Your task to perform on an android device: change keyboard looks Image 0: 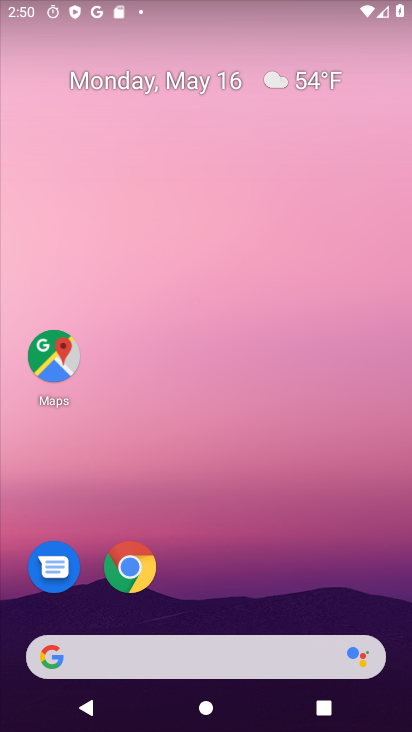
Step 0: drag from (266, 568) to (214, 88)
Your task to perform on an android device: change keyboard looks Image 1: 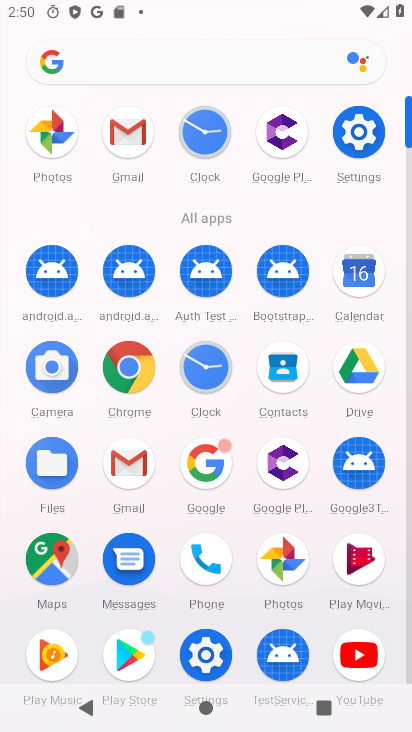
Step 1: click (358, 131)
Your task to perform on an android device: change keyboard looks Image 2: 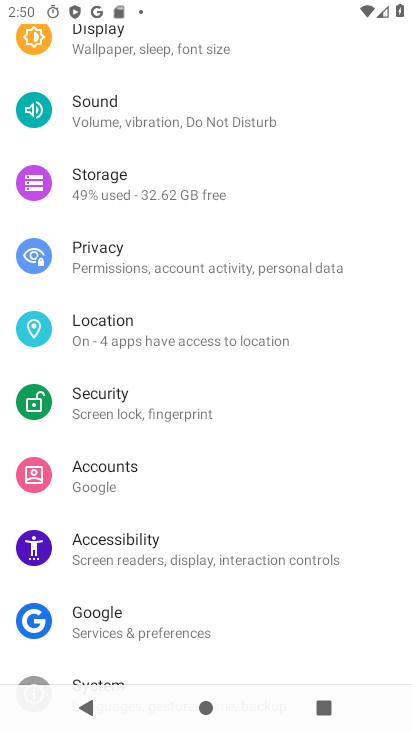
Step 2: drag from (184, 486) to (198, 428)
Your task to perform on an android device: change keyboard looks Image 3: 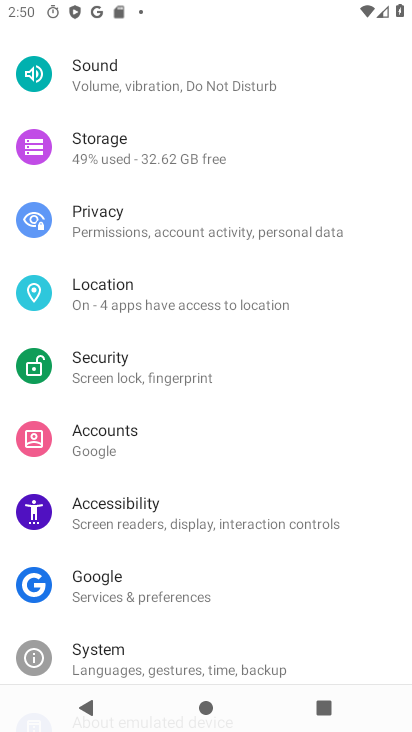
Step 3: drag from (220, 262) to (251, 366)
Your task to perform on an android device: change keyboard looks Image 4: 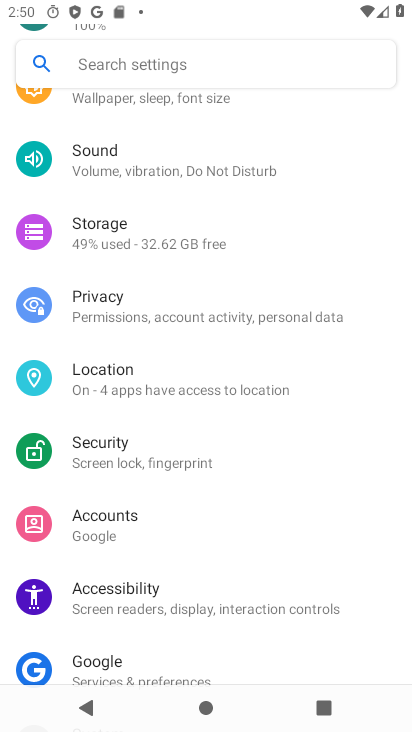
Step 4: drag from (253, 219) to (290, 327)
Your task to perform on an android device: change keyboard looks Image 5: 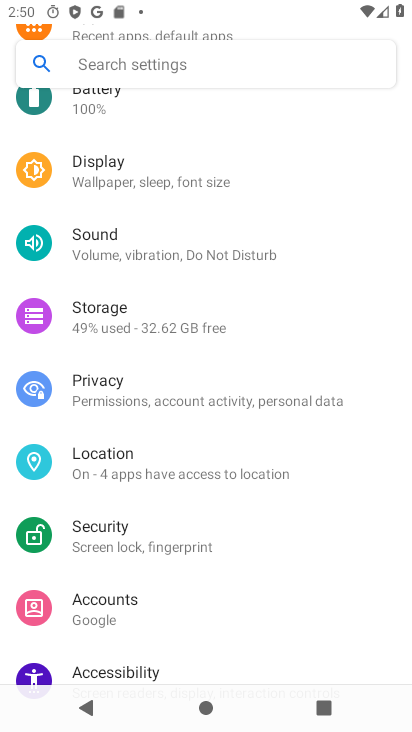
Step 5: drag from (160, 507) to (216, 357)
Your task to perform on an android device: change keyboard looks Image 6: 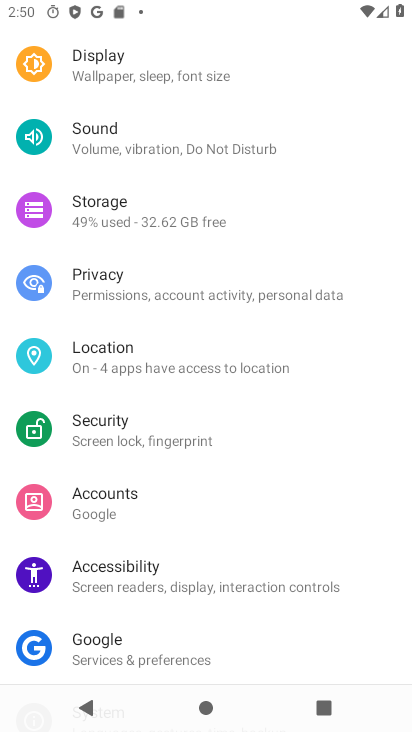
Step 6: drag from (173, 548) to (209, 432)
Your task to perform on an android device: change keyboard looks Image 7: 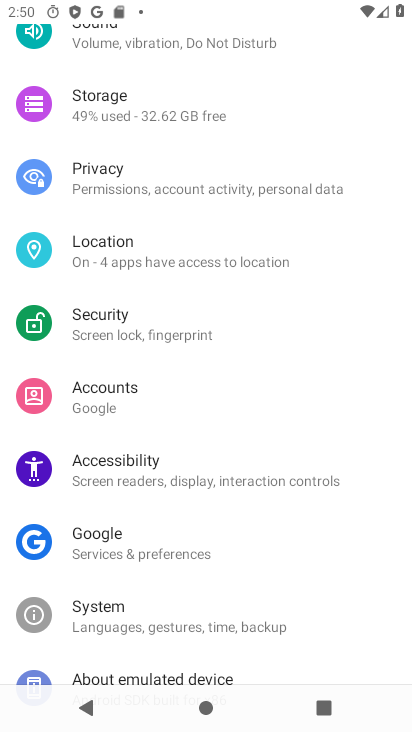
Step 7: drag from (156, 516) to (212, 401)
Your task to perform on an android device: change keyboard looks Image 8: 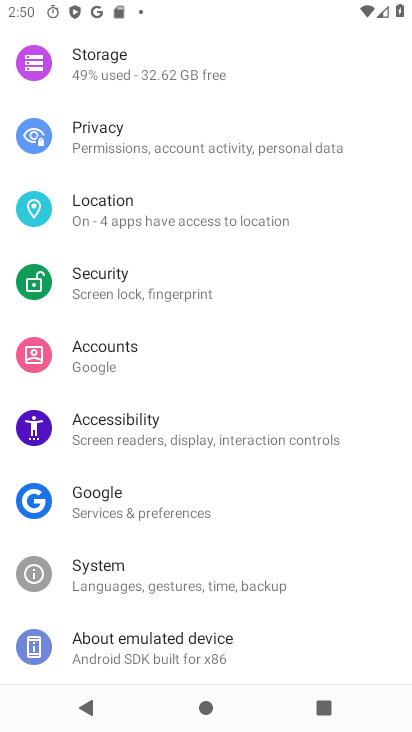
Step 8: click (160, 592)
Your task to perform on an android device: change keyboard looks Image 9: 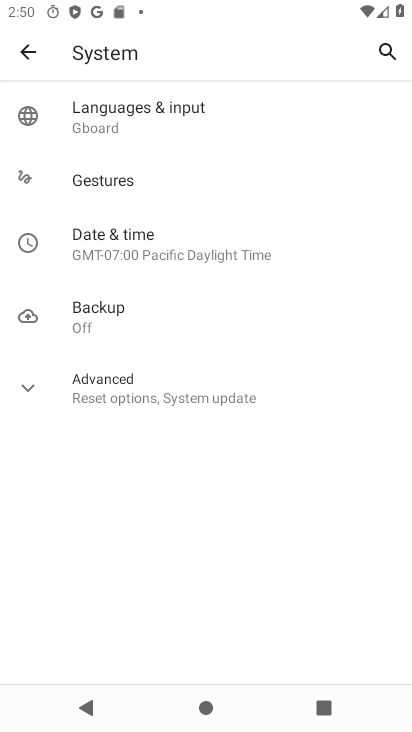
Step 9: click (148, 117)
Your task to perform on an android device: change keyboard looks Image 10: 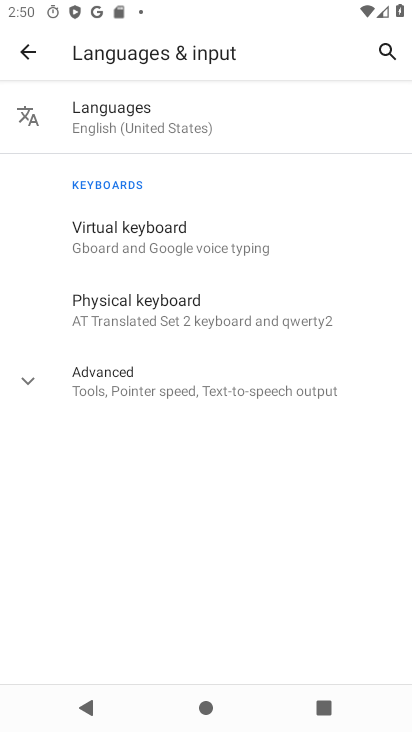
Step 10: click (145, 253)
Your task to perform on an android device: change keyboard looks Image 11: 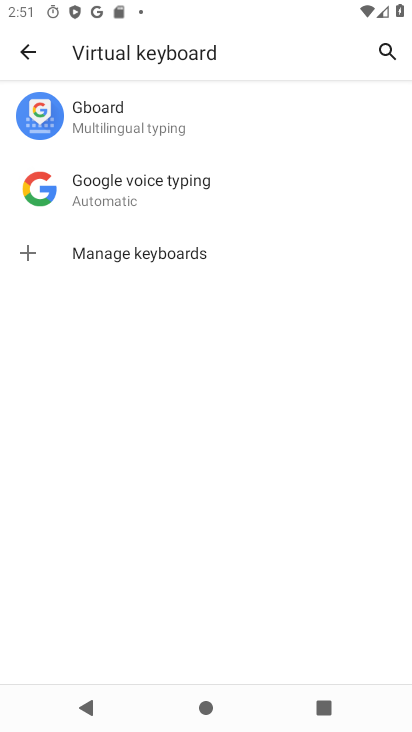
Step 11: click (134, 128)
Your task to perform on an android device: change keyboard looks Image 12: 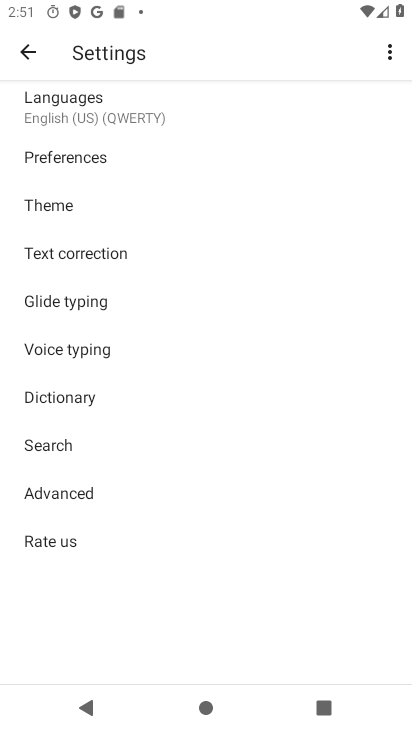
Step 12: click (48, 207)
Your task to perform on an android device: change keyboard looks Image 13: 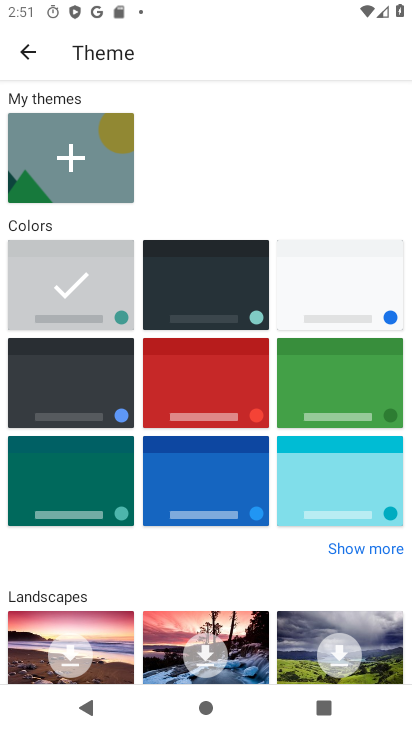
Step 13: click (222, 388)
Your task to perform on an android device: change keyboard looks Image 14: 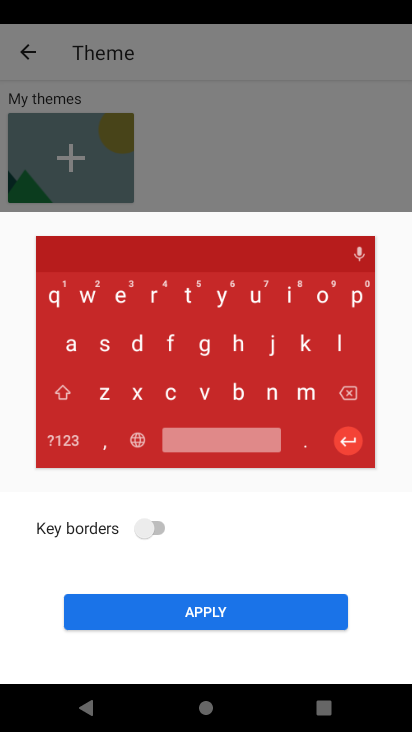
Step 14: click (143, 529)
Your task to perform on an android device: change keyboard looks Image 15: 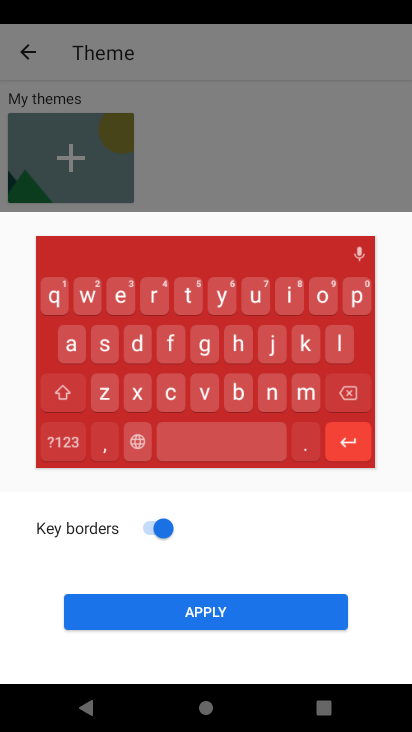
Step 15: click (218, 611)
Your task to perform on an android device: change keyboard looks Image 16: 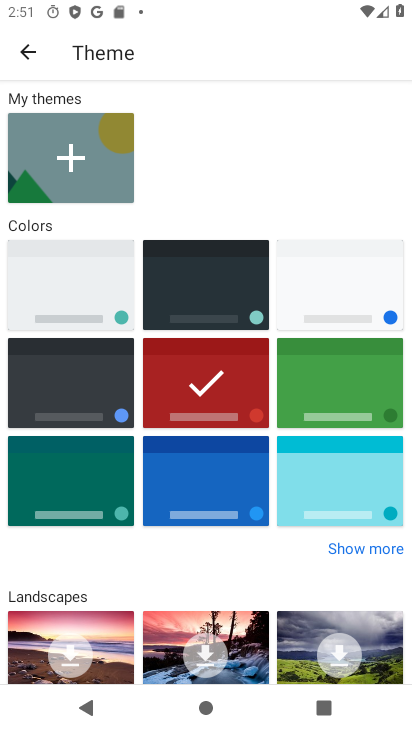
Step 16: task complete